Your task to perform on an android device: What's the weather today? Image 0: 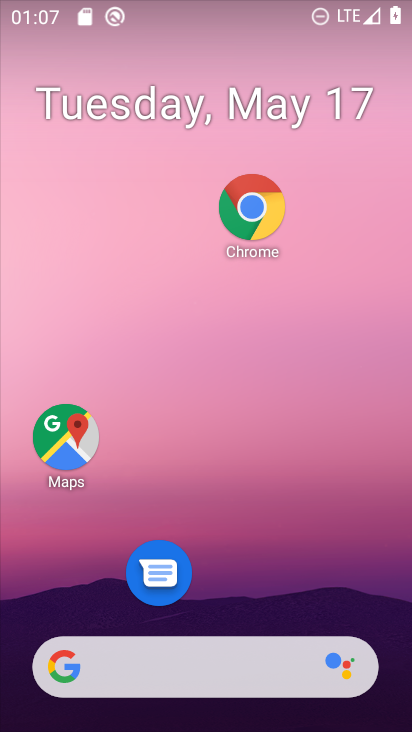
Step 0: drag from (0, 327) to (411, 547)
Your task to perform on an android device: What's the weather today? Image 1: 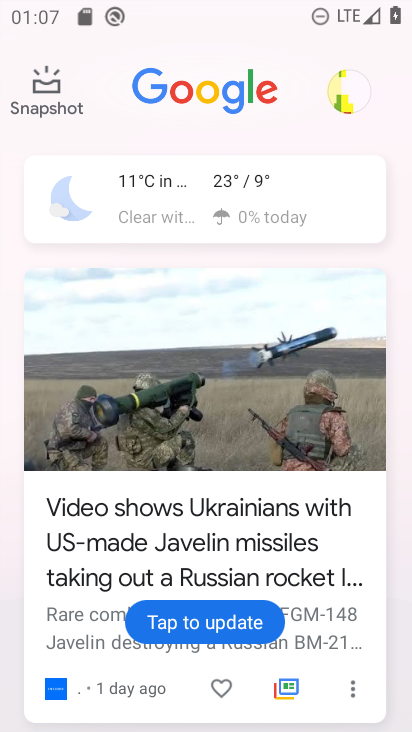
Step 1: click (166, 213)
Your task to perform on an android device: What's the weather today? Image 2: 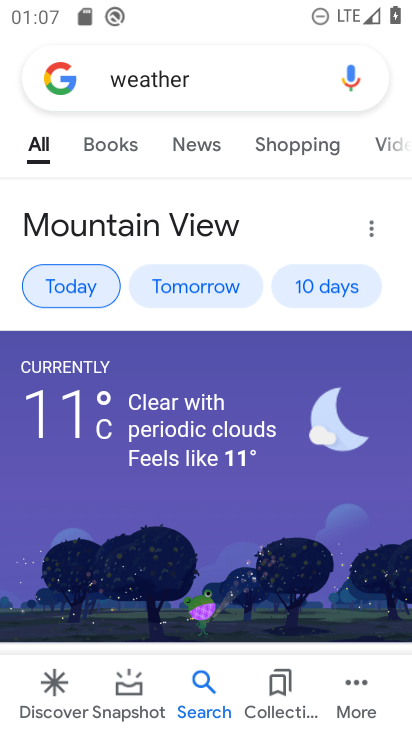
Step 2: task complete